Your task to perform on an android device: turn on javascript in the chrome app Image 0: 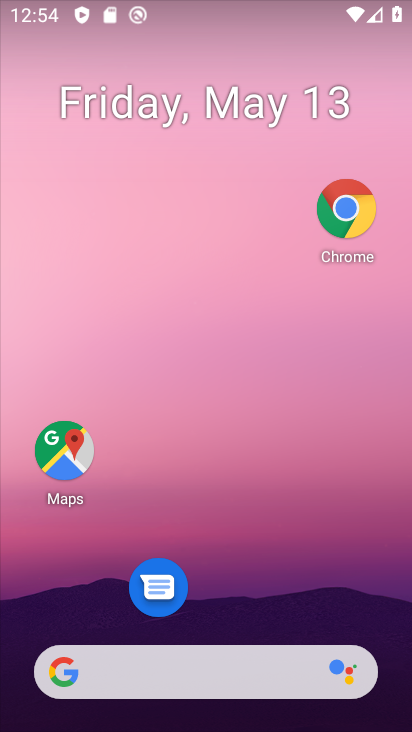
Step 0: click (345, 195)
Your task to perform on an android device: turn on javascript in the chrome app Image 1: 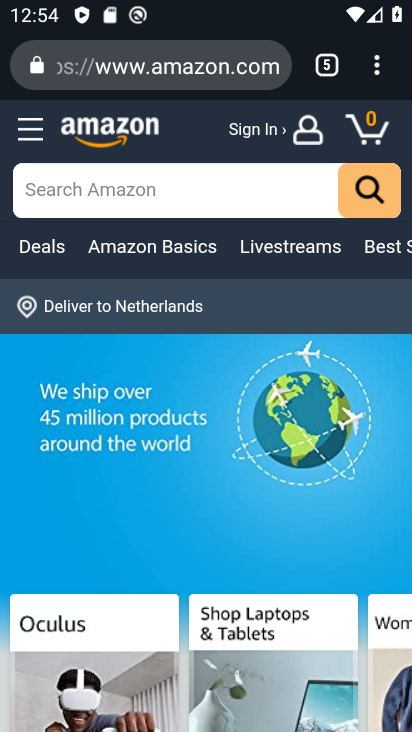
Step 1: drag from (380, 66) to (146, 634)
Your task to perform on an android device: turn on javascript in the chrome app Image 2: 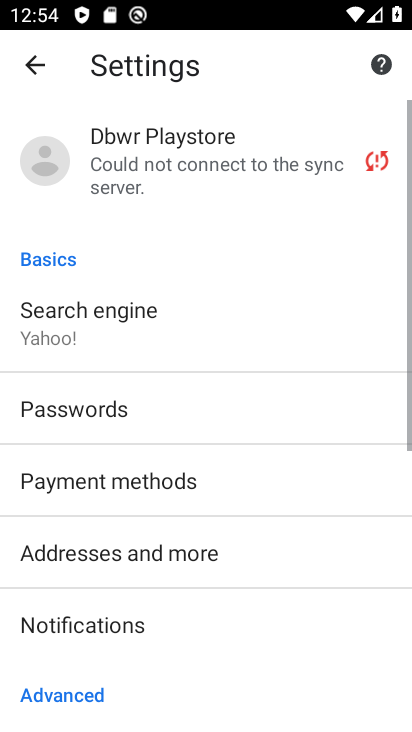
Step 2: drag from (158, 598) to (250, 153)
Your task to perform on an android device: turn on javascript in the chrome app Image 3: 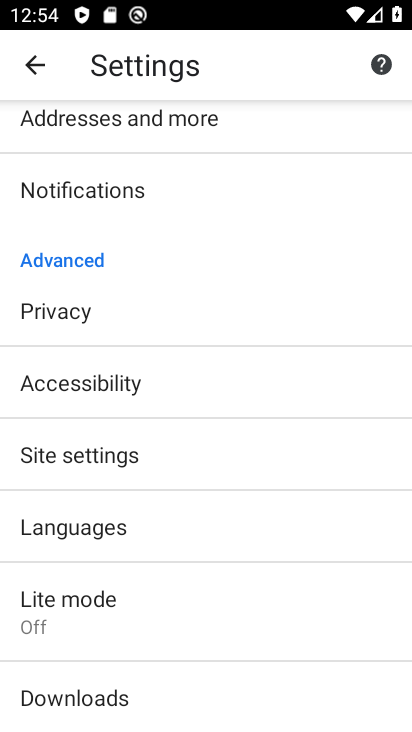
Step 3: click (75, 448)
Your task to perform on an android device: turn on javascript in the chrome app Image 4: 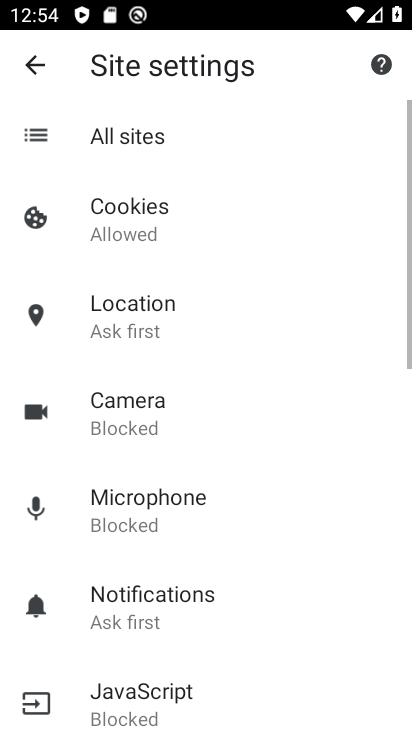
Step 4: click (159, 694)
Your task to perform on an android device: turn on javascript in the chrome app Image 5: 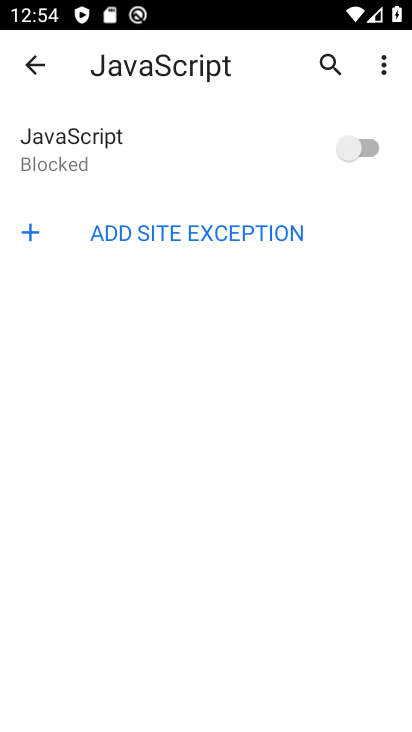
Step 5: click (350, 144)
Your task to perform on an android device: turn on javascript in the chrome app Image 6: 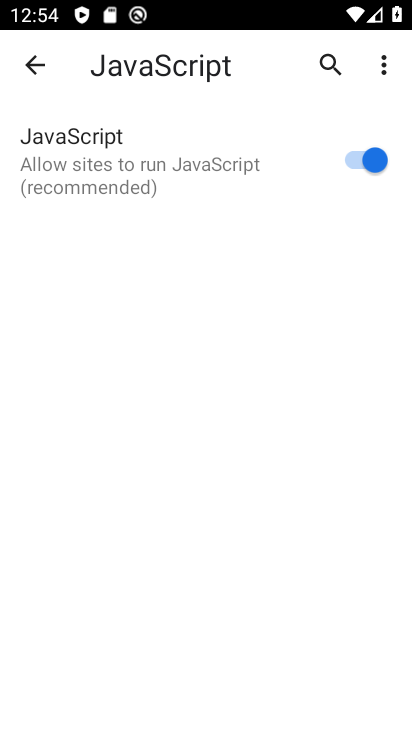
Step 6: task complete